Your task to perform on an android device: What's on my calendar today? Image 0: 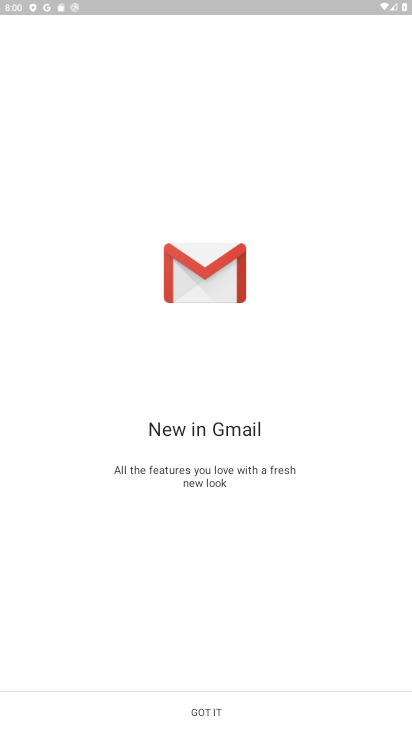
Step 0: click (201, 698)
Your task to perform on an android device: What's on my calendar today? Image 1: 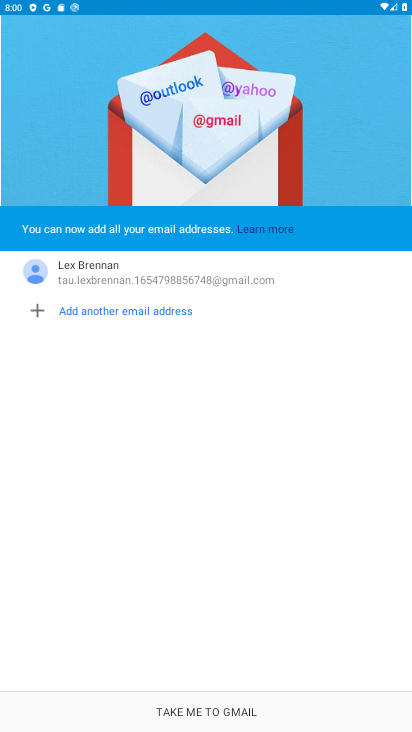
Step 1: click (226, 701)
Your task to perform on an android device: What's on my calendar today? Image 2: 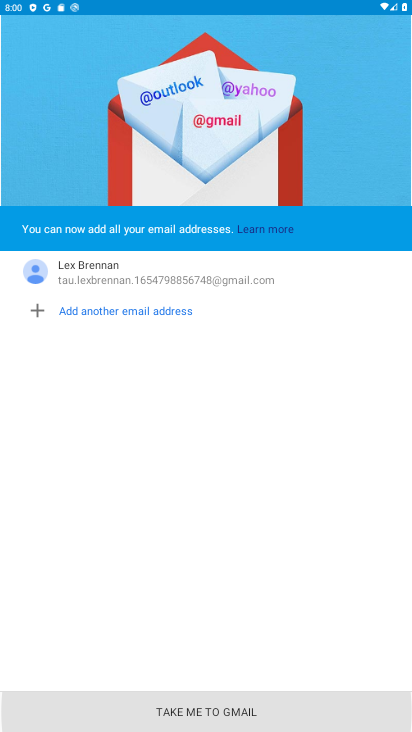
Step 2: click (230, 701)
Your task to perform on an android device: What's on my calendar today? Image 3: 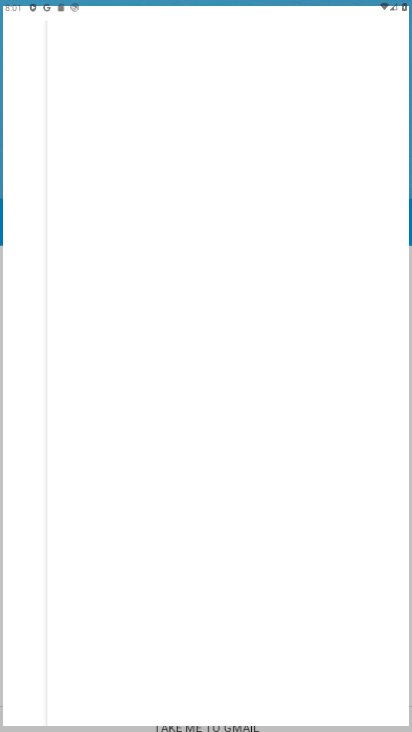
Step 3: click (233, 703)
Your task to perform on an android device: What's on my calendar today? Image 4: 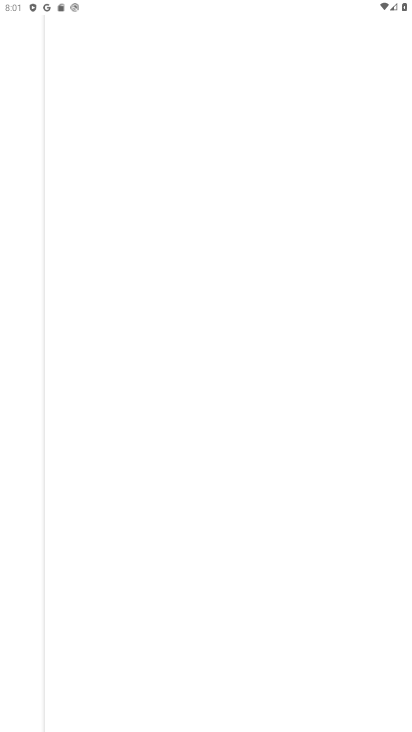
Step 4: click (234, 702)
Your task to perform on an android device: What's on my calendar today? Image 5: 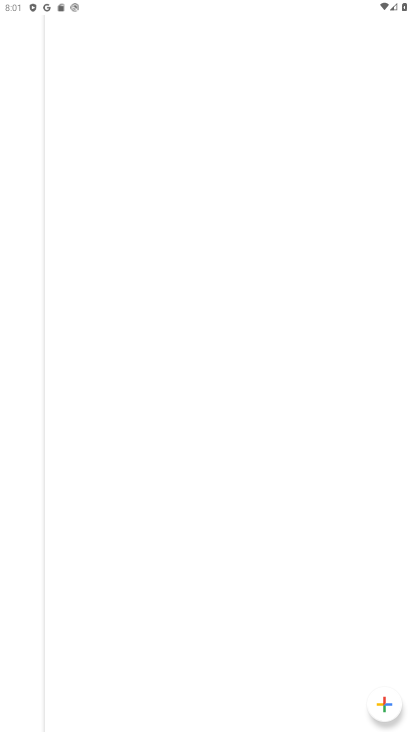
Step 5: click (235, 698)
Your task to perform on an android device: What's on my calendar today? Image 6: 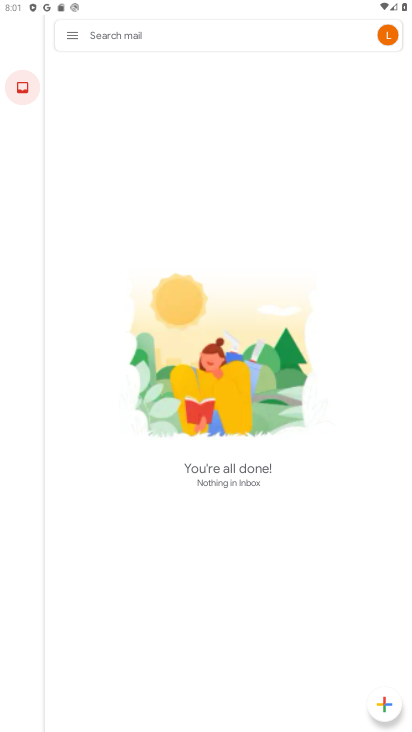
Step 6: press back button
Your task to perform on an android device: What's on my calendar today? Image 7: 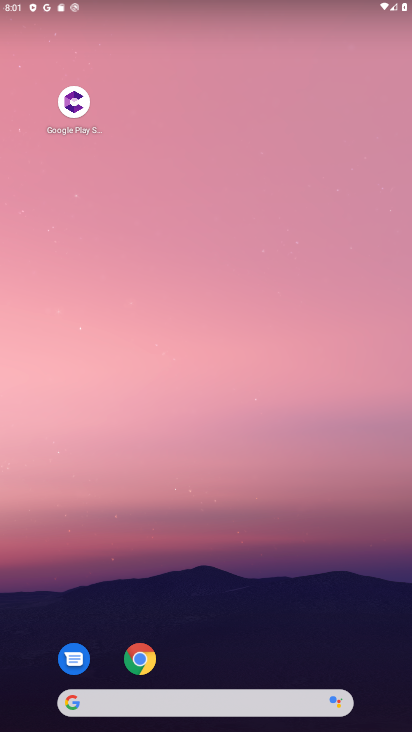
Step 7: drag from (276, 685) to (275, 176)
Your task to perform on an android device: What's on my calendar today? Image 8: 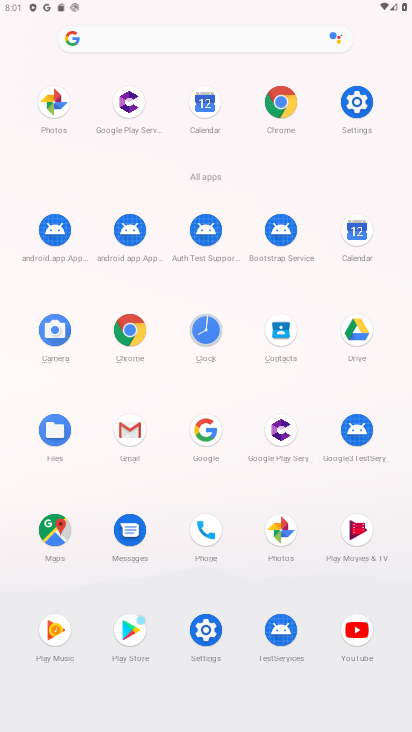
Step 8: click (352, 229)
Your task to perform on an android device: What's on my calendar today? Image 9: 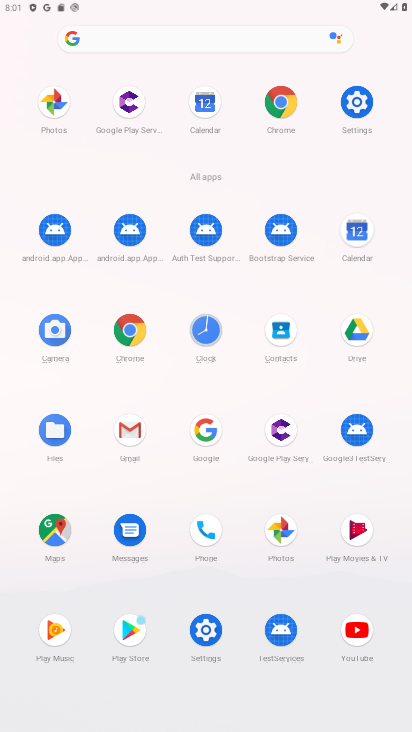
Step 9: click (352, 229)
Your task to perform on an android device: What's on my calendar today? Image 10: 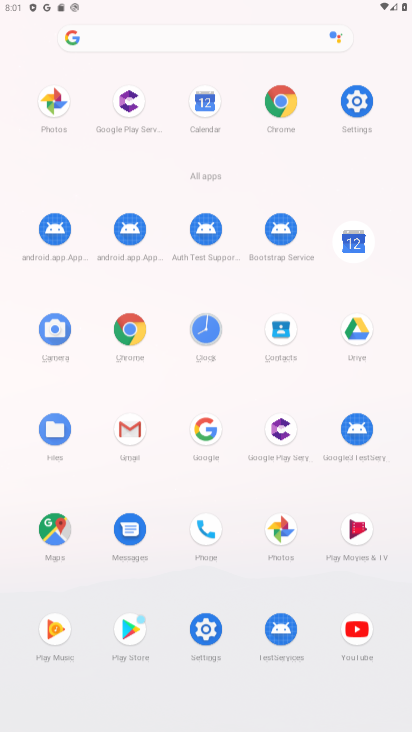
Step 10: click (353, 229)
Your task to perform on an android device: What's on my calendar today? Image 11: 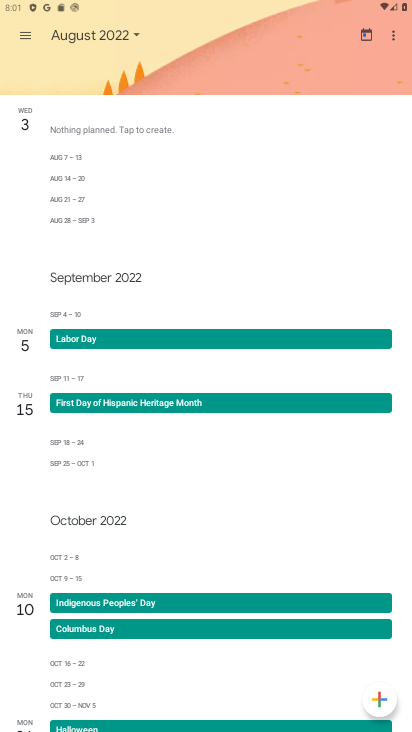
Step 11: click (135, 34)
Your task to perform on an android device: What's on my calendar today? Image 12: 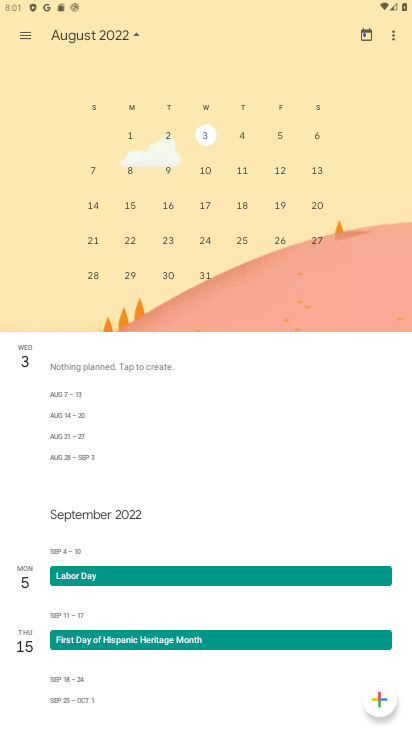
Step 12: drag from (72, 223) to (404, 228)
Your task to perform on an android device: What's on my calendar today? Image 13: 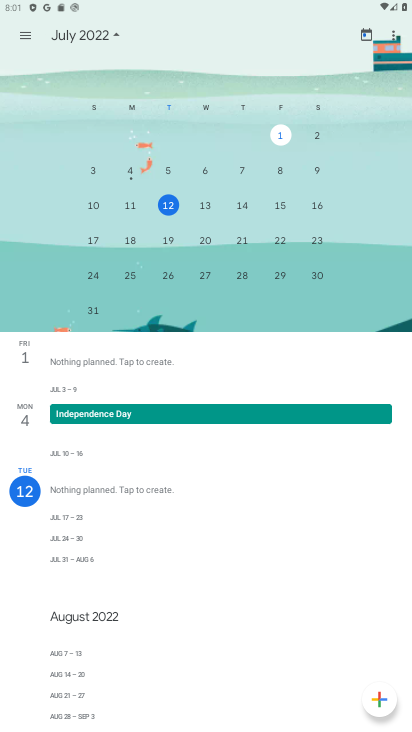
Step 13: click (200, 207)
Your task to perform on an android device: What's on my calendar today? Image 14: 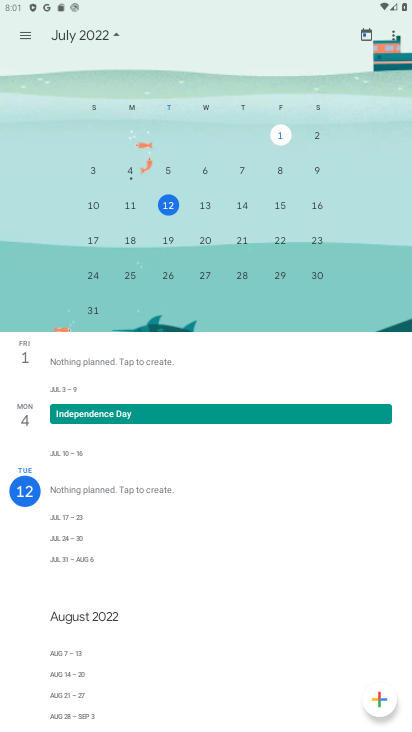
Step 14: click (209, 211)
Your task to perform on an android device: What's on my calendar today? Image 15: 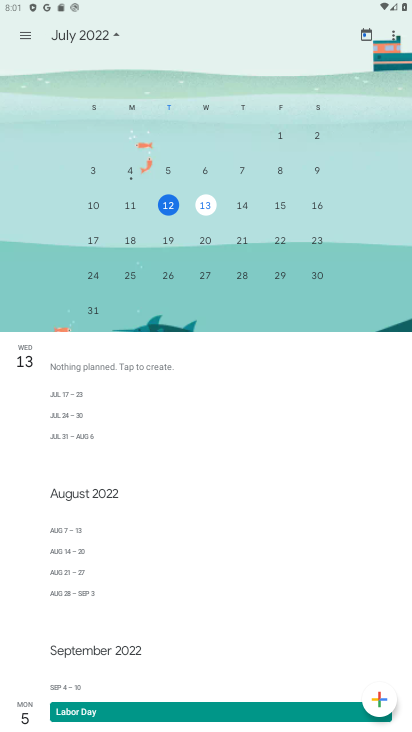
Step 15: click (211, 211)
Your task to perform on an android device: What's on my calendar today? Image 16: 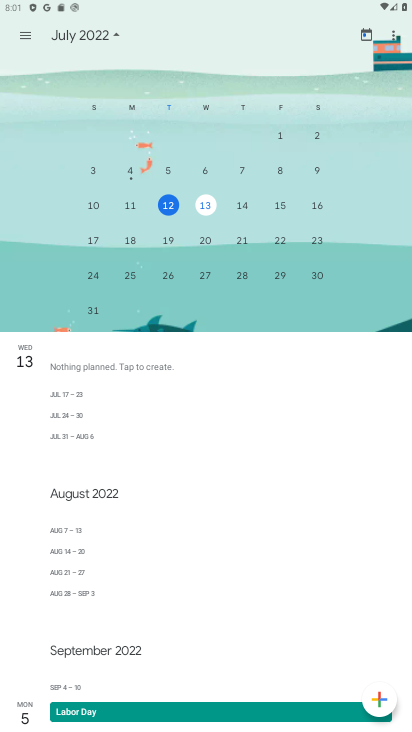
Step 16: click (205, 210)
Your task to perform on an android device: What's on my calendar today? Image 17: 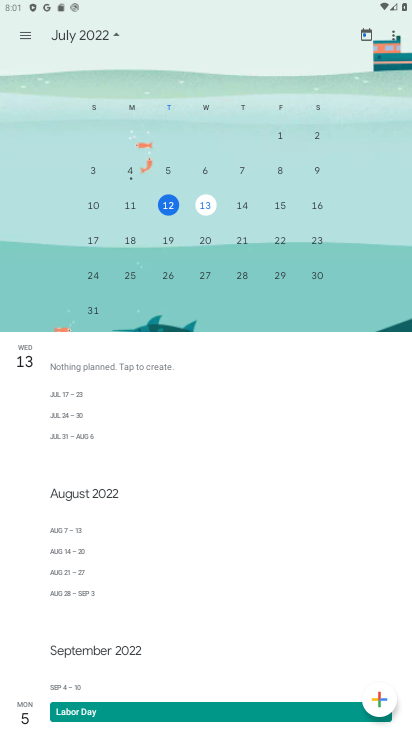
Step 17: task complete